Your task to perform on an android device: Turn on the flashlight Image 0: 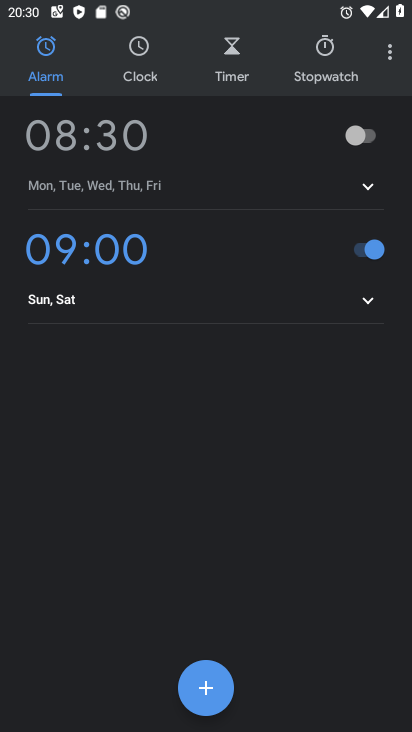
Step 0: press home button
Your task to perform on an android device: Turn on the flashlight Image 1: 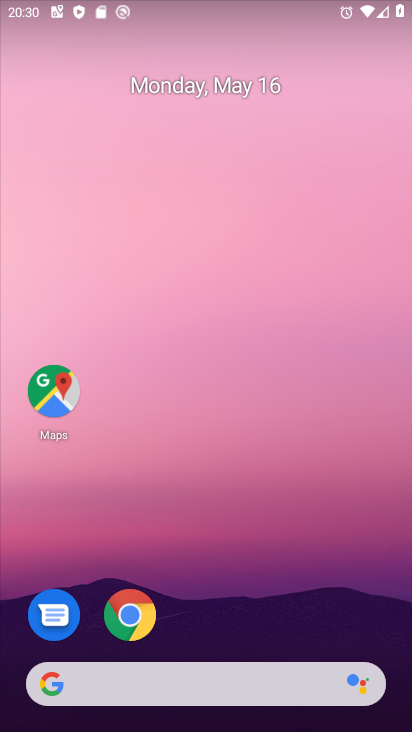
Step 1: drag from (170, 623) to (272, 186)
Your task to perform on an android device: Turn on the flashlight Image 2: 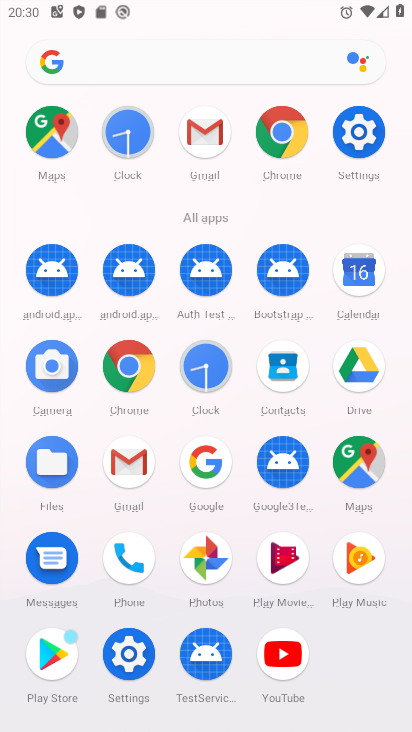
Step 2: click (354, 142)
Your task to perform on an android device: Turn on the flashlight Image 3: 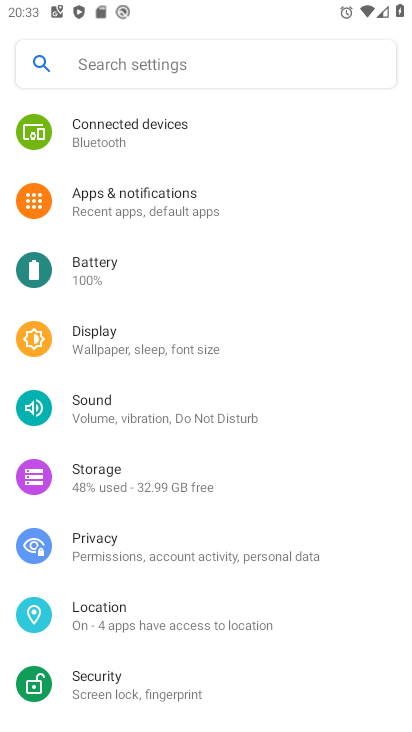
Step 3: task complete